Your task to perform on an android device: set default search engine in the chrome app Image 0: 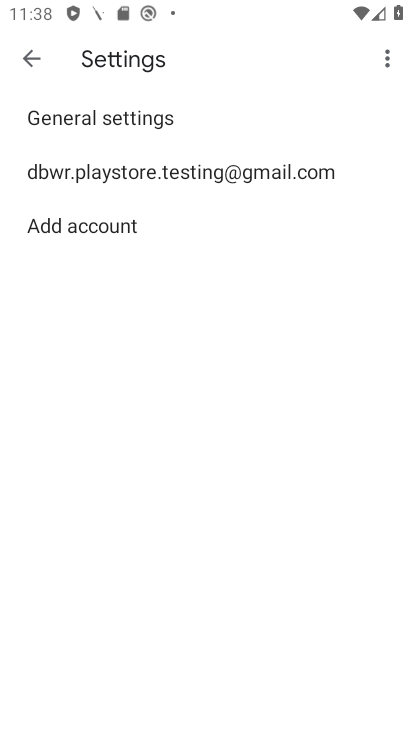
Step 0: press home button
Your task to perform on an android device: set default search engine in the chrome app Image 1: 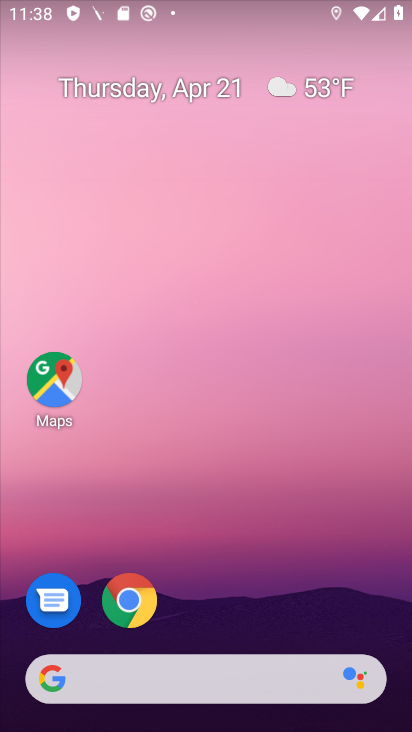
Step 1: click (137, 598)
Your task to perform on an android device: set default search engine in the chrome app Image 2: 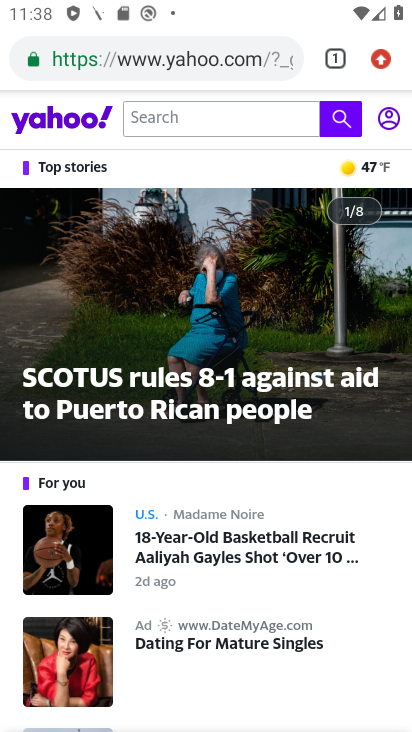
Step 2: click (388, 72)
Your task to perform on an android device: set default search engine in the chrome app Image 3: 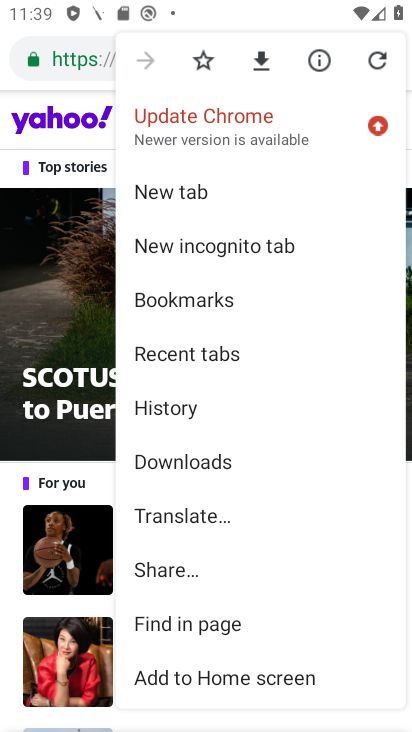
Step 3: drag from (255, 626) to (213, 273)
Your task to perform on an android device: set default search engine in the chrome app Image 4: 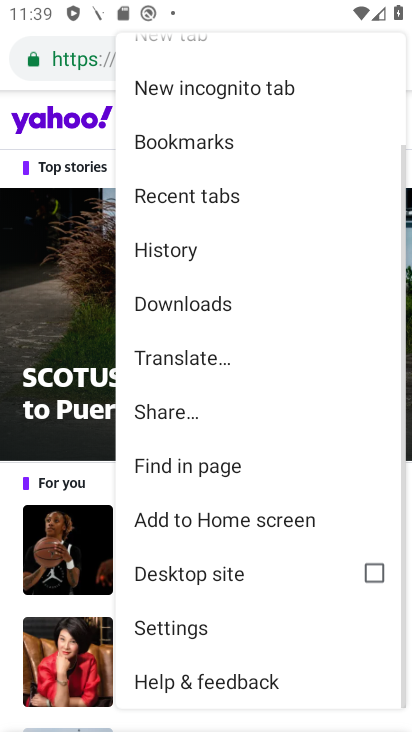
Step 4: click (195, 632)
Your task to perform on an android device: set default search engine in the chrome app Image 5: 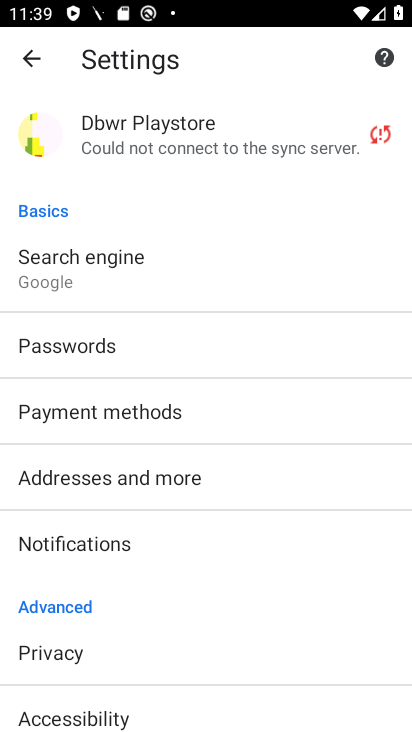
Step 5: click (112, 272)
Your task to perform on an android device: set default search engine in the chrome app Image 6: 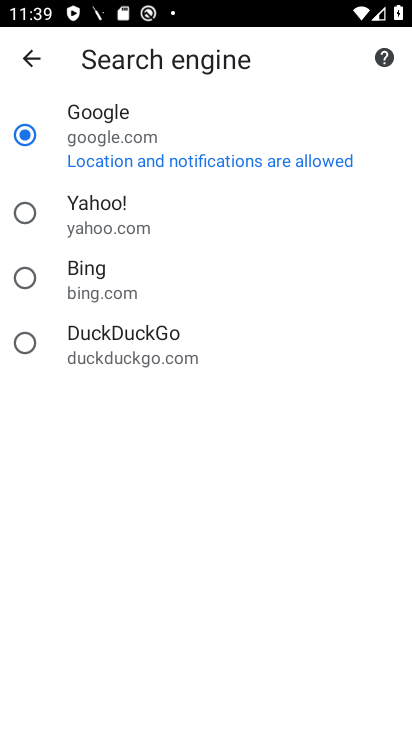
Step 6: click (85, 274)
Your task to perform on an android device: set default search engine in the chrome app Image 7: 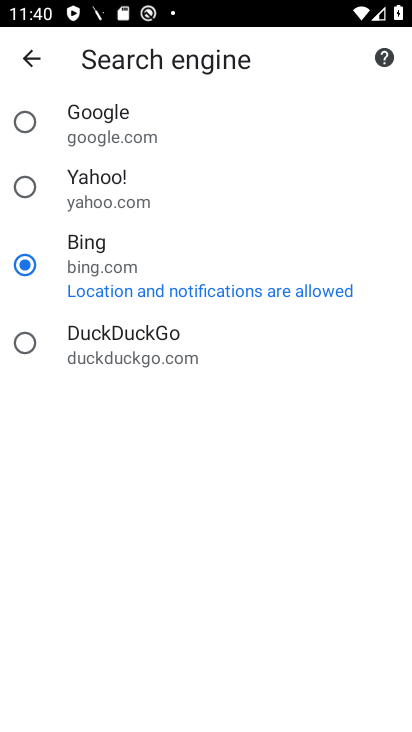
Step 7: task complete